Your task to perform on an android device: turn off priority inbox in the gmail app Image 0: 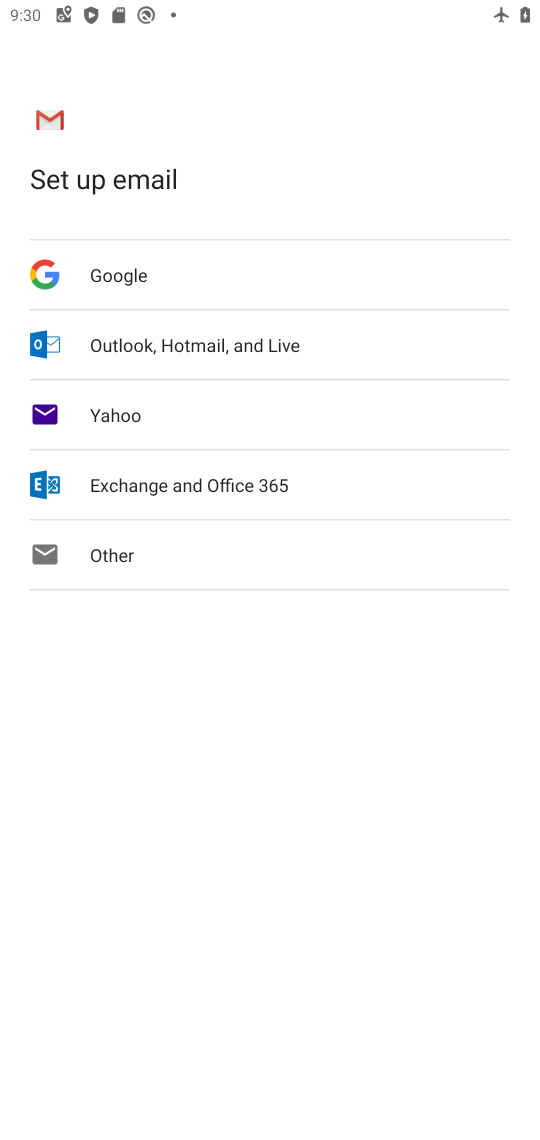
Step 0: press back button
Your task to perform on an android device: turn off priority inbox in the gmail app Image 1: 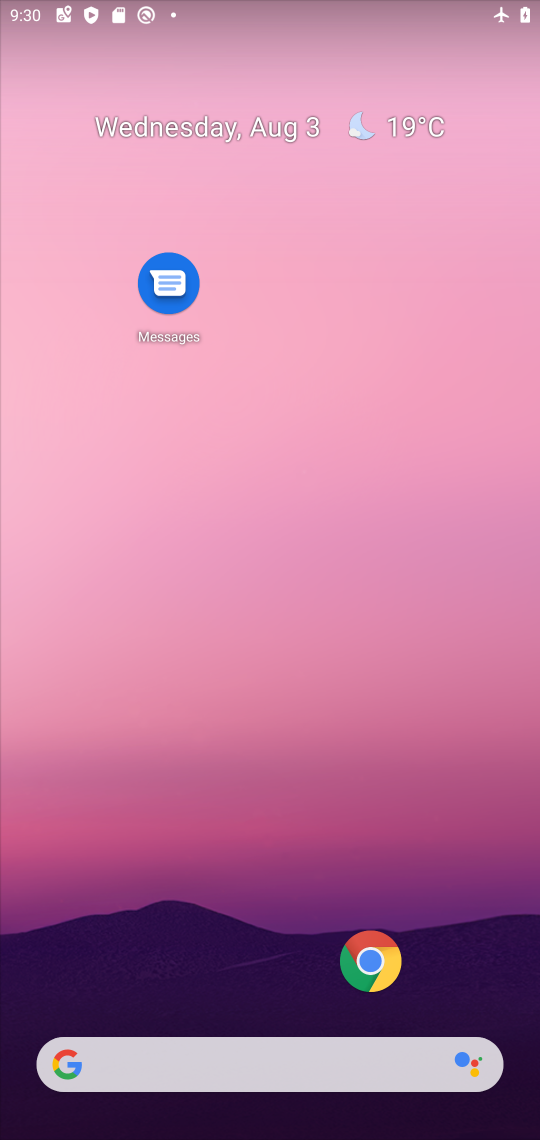
Step 1: drag from (260, 999) to (185, 96)
Your task to perform on an android device: turn off priority inbox in the gmail app Image 2: 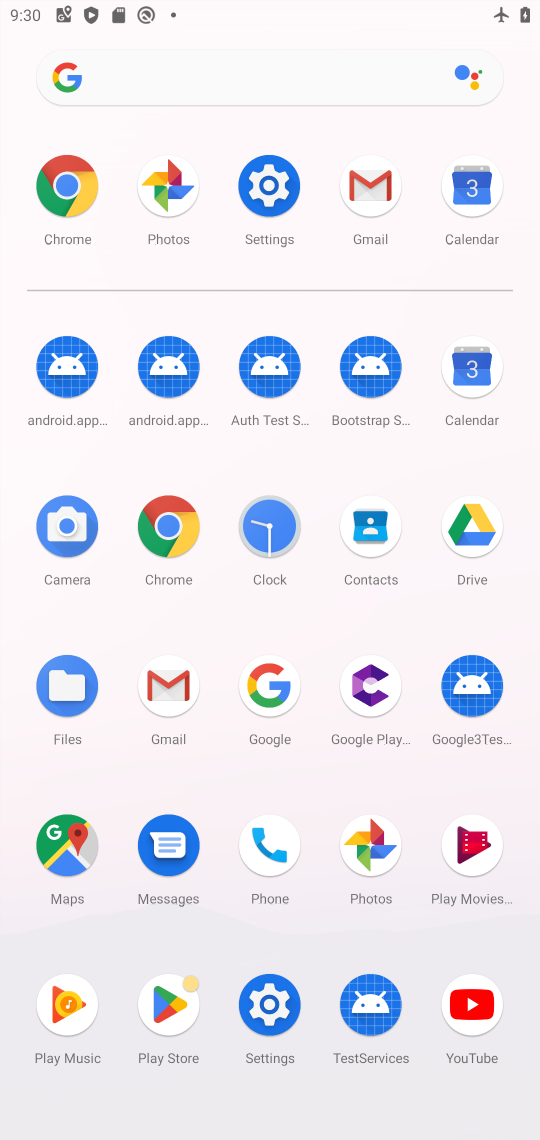
Step 2: click (166, 690)
Your task to perform on an android device: turn off priority inbox in the gmail app Image 3: 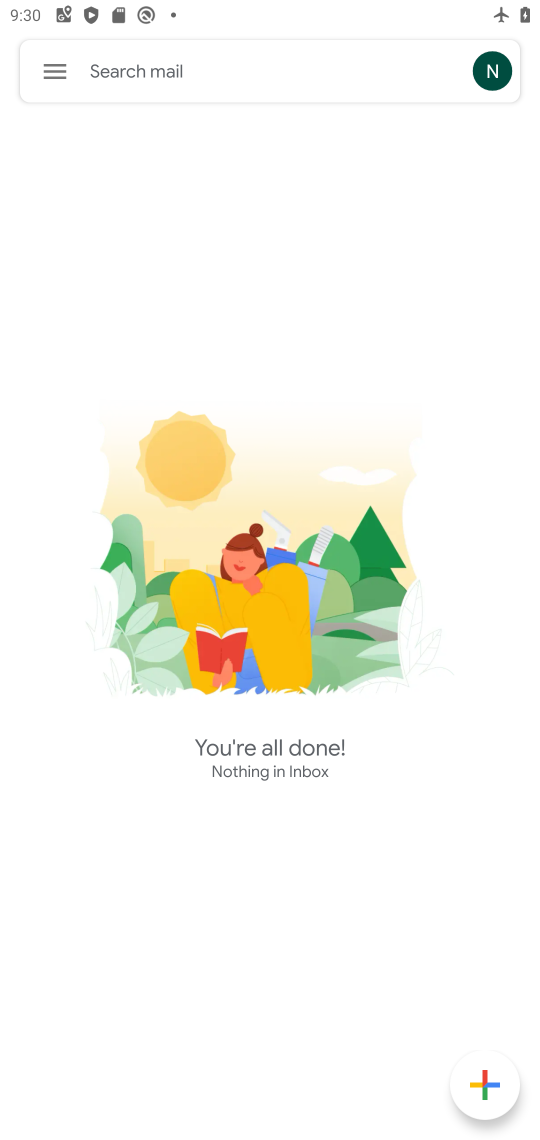
Step 3: click (27, 72)
Your task to perform on an android device: turn off priority inbox in the gmail app Image 4: 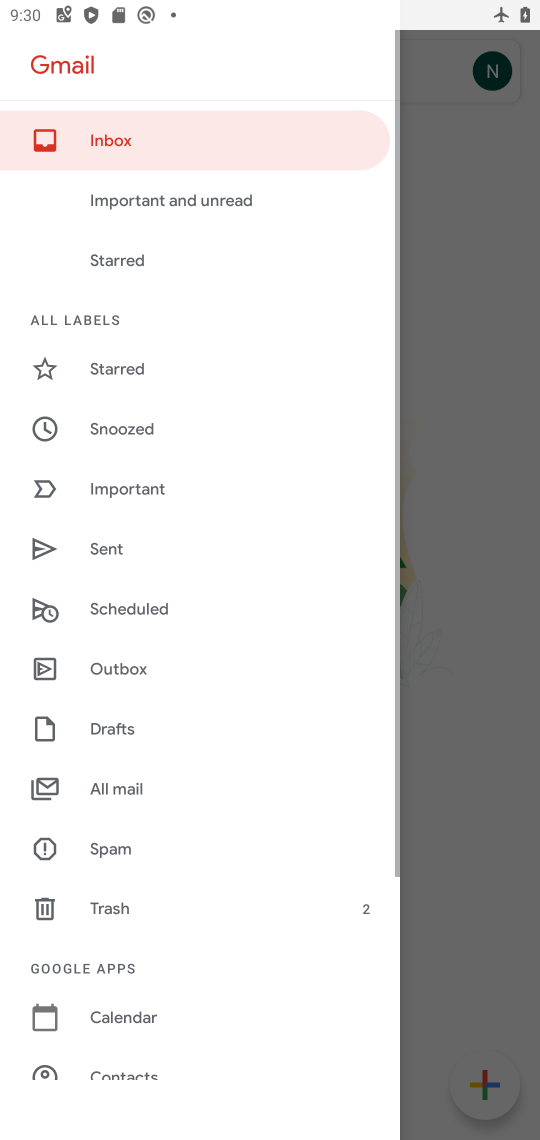
Step 4: drag from (108, 984) to (114, 345)
Your task to perform on an android device: turn off priority inbox in the gmail app Image 5: 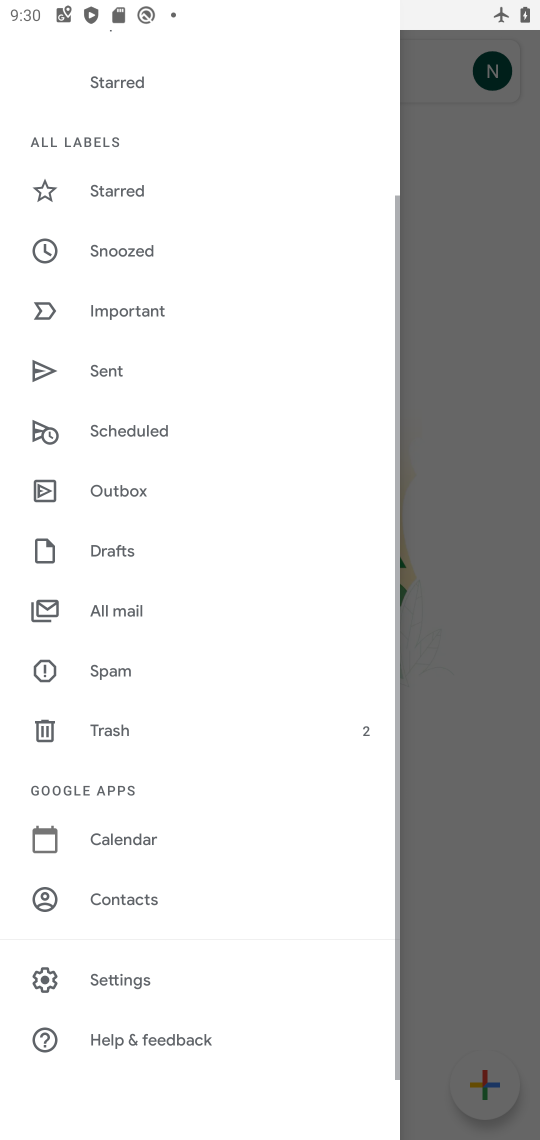
Step 5: click (44, 977)
Your task to perform on an android device: turn off priority inbox in the gmail app Image 6: 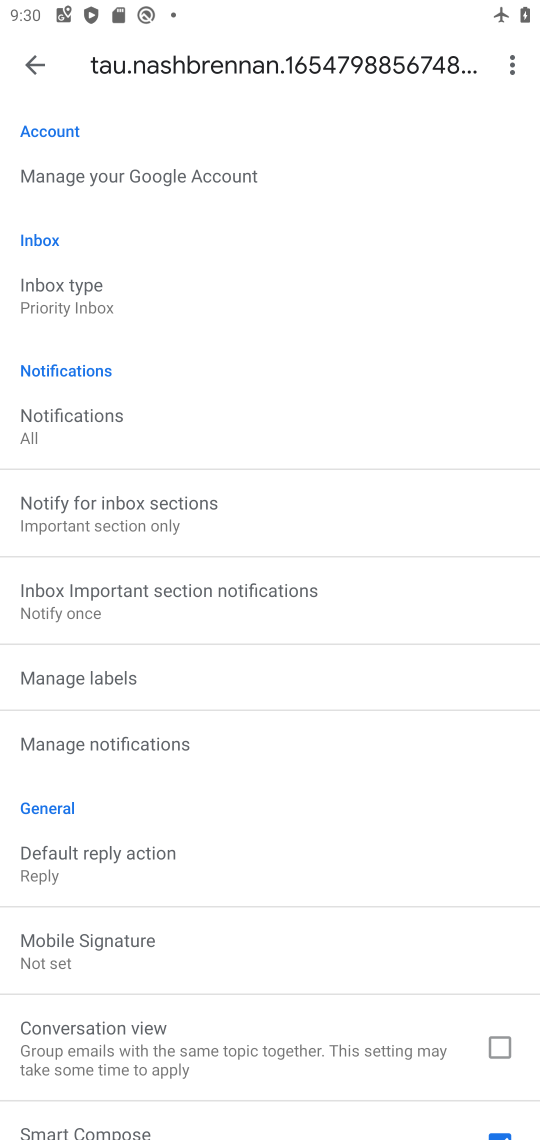
Step 6: click (72, 285)
Your task to perform on an android device: turn off priority inbox in the gmail app Image 7: 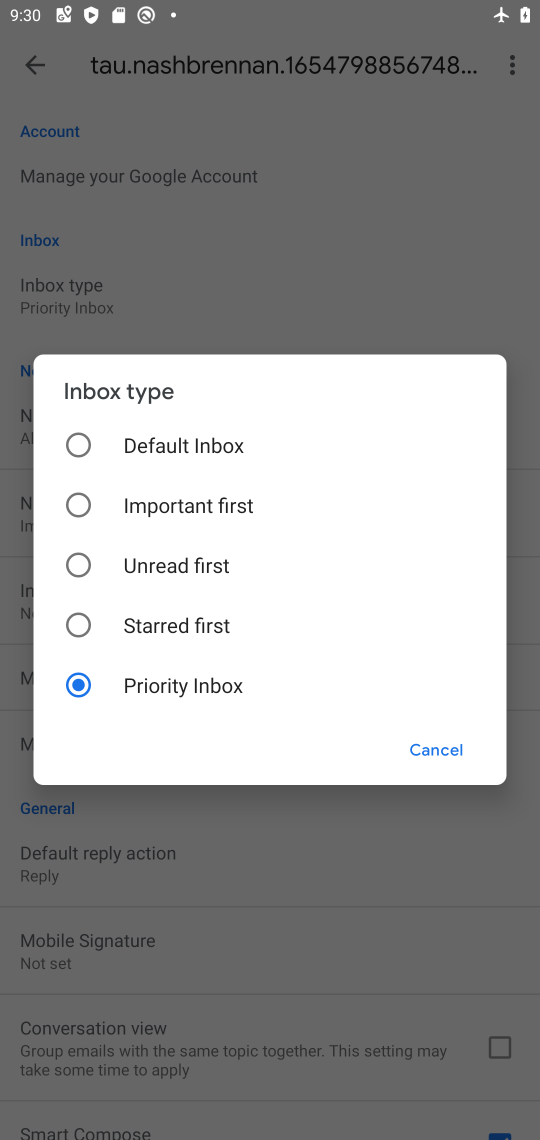
Step 7: click (123, 429)
Your task to perform on an android device: turn off priority inbox in the gmail app Image 8: 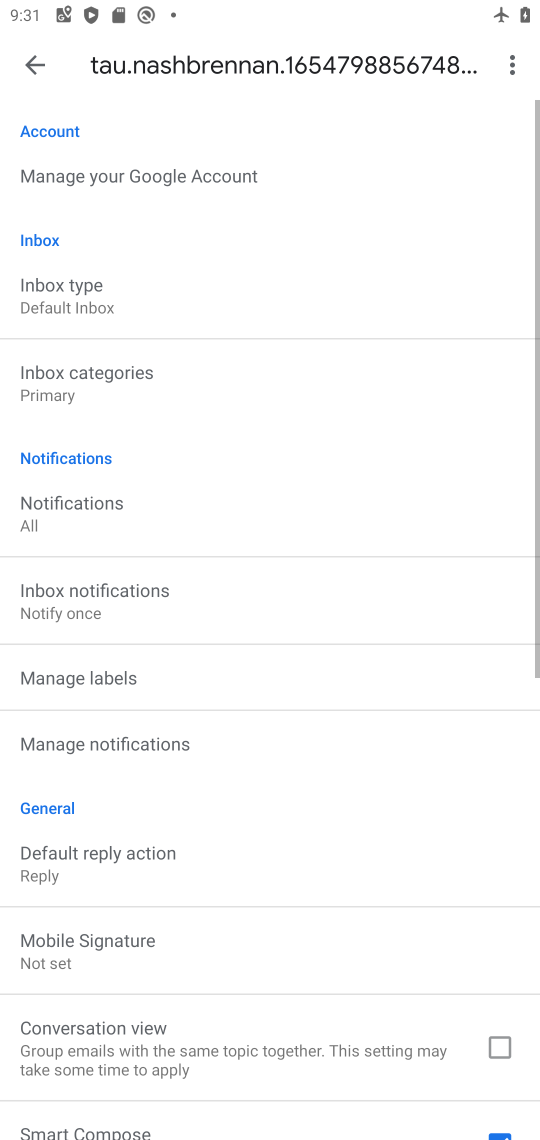
Step 8: task complete